Your task to perform on an android device: turn on translation in the chrome app Image 0: 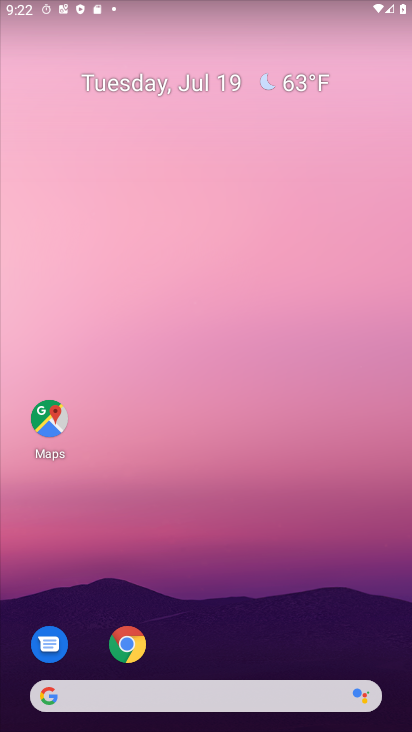
Step 0: click (171, 290)
Your task to perform on an android device: turn on translation in the chrome app Image 1: 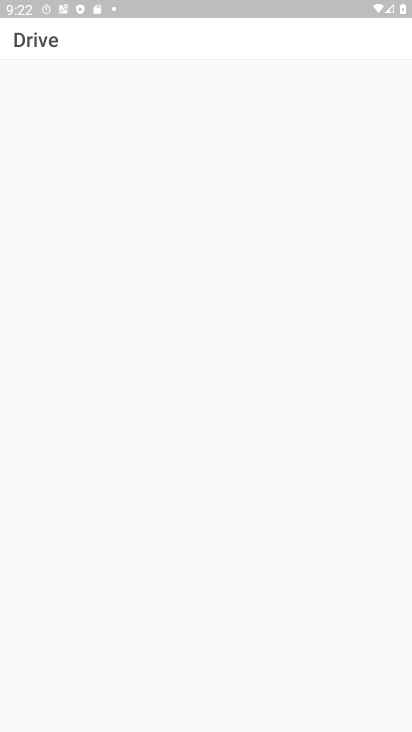
Step 1: drag from (208, 618) to (208, 187)
Your task to perform on an android device: turn on translation in the chrome app Image 2: 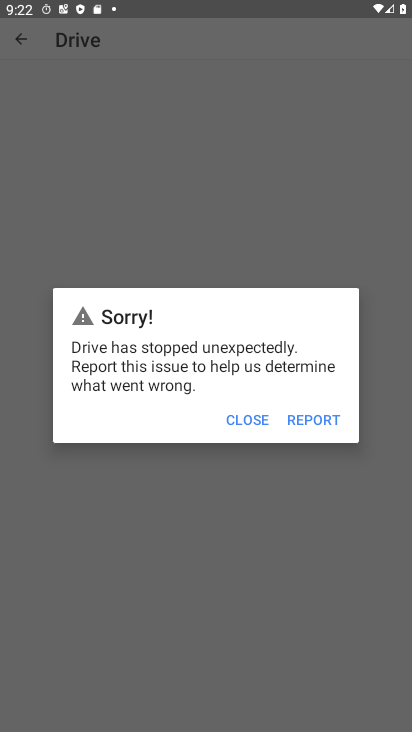
Step 2: click (241, 411)
Your task to perform on an android device: turn on translation in the chrome app Image 3: 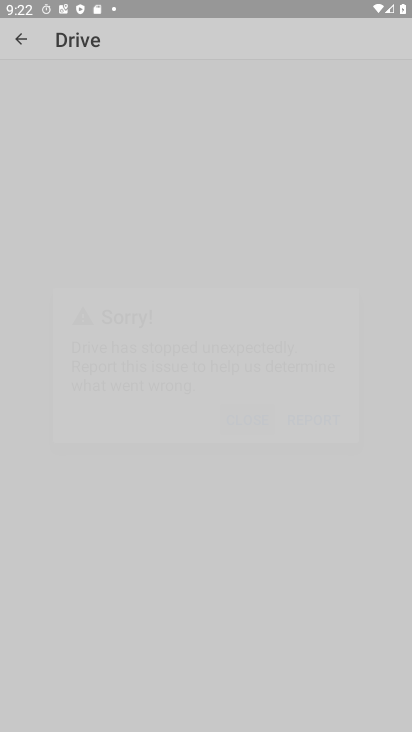
Step 3: click (242, 413)
Your task to perform on an android device: turn on translation in the chrome app Image 4: 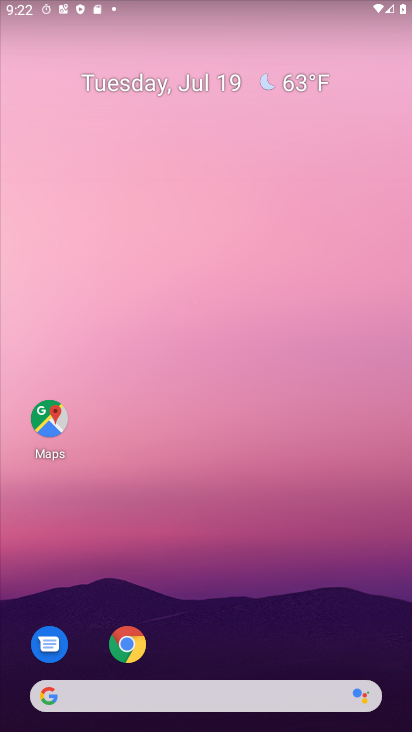
Step 4: drag from (198, 569) to (205, 198)
Your task to perform on an android device: turn on translation in the chrome app Image 5: 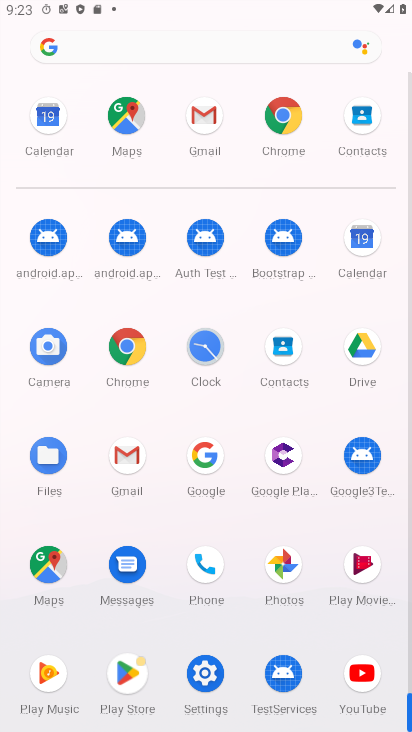
Step 5: click (299, 112)
Your task to perform on an android device: turn on translation in the chrome app Image 6: 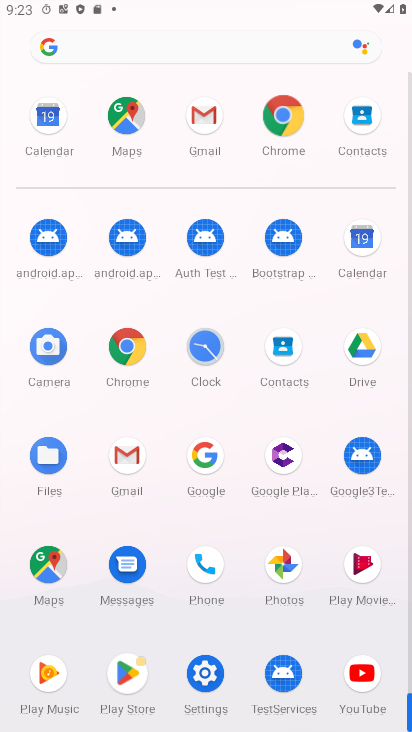
Step 6: click (299, 114)
Your task to perform on an android device: turn on translation in the chrome app Image 7: 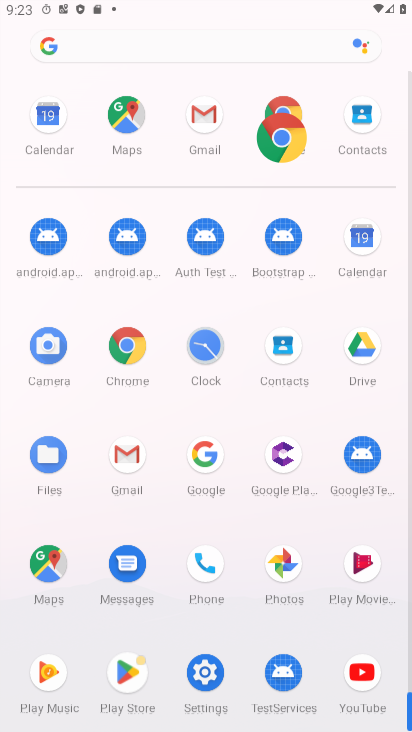
Step 7: click (299, 114)
Your task to perform on an android device: turn on translation in the chrome app Image 8: 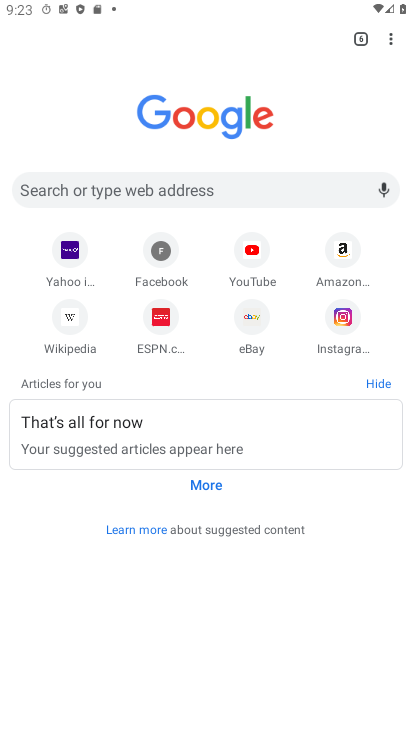
Step 8: drag from (382, 38) to (245, 333)
Your task to perform on an android device: turn on translation in the chrome app Image 9: 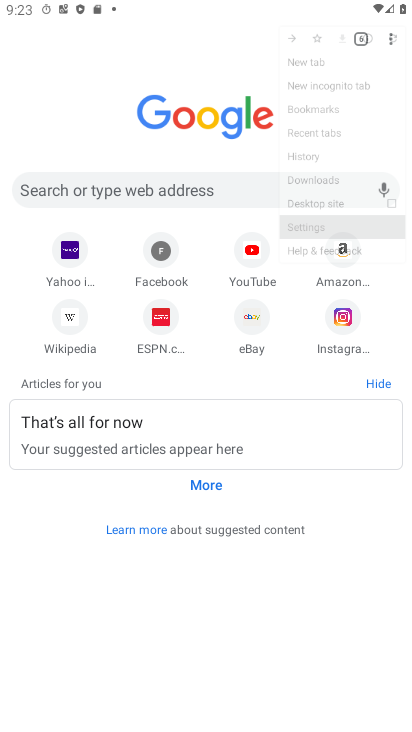
Step 9: click (245, 333)
Your task to perform on an android device: turn on translation in the chrome app Image 10: 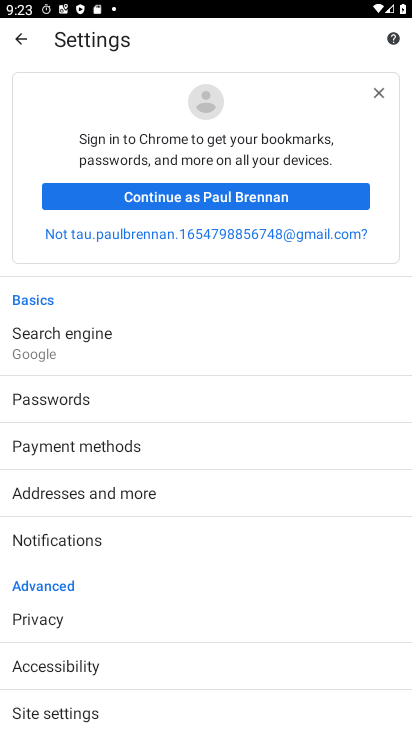
Step 10: drag from (126, 641) to (107, 139)
Your task to perform on an android device: turn on translation in the chrome app Image 11: 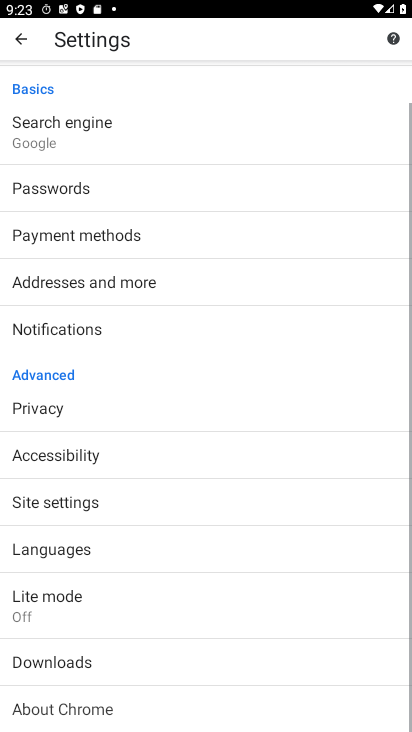
Step 11: drag from (119, 545) to (109, 176)
Your task to perform on an android device: turn on translation in the chrome app Image 12: 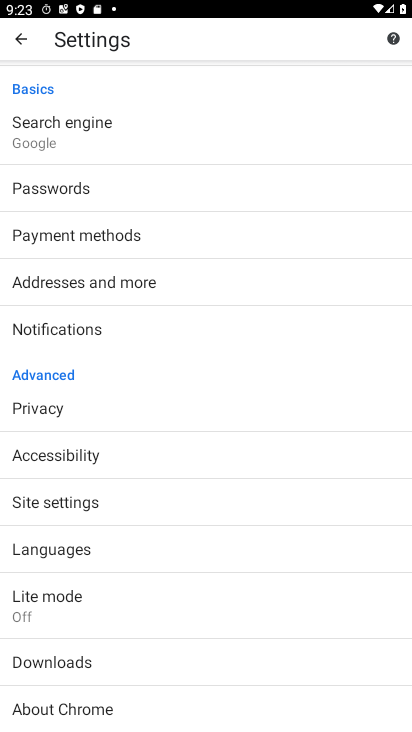
Step 12: click (70, 554)
Your task to perform on an android device: turn on translation in the chrome app Image 13: 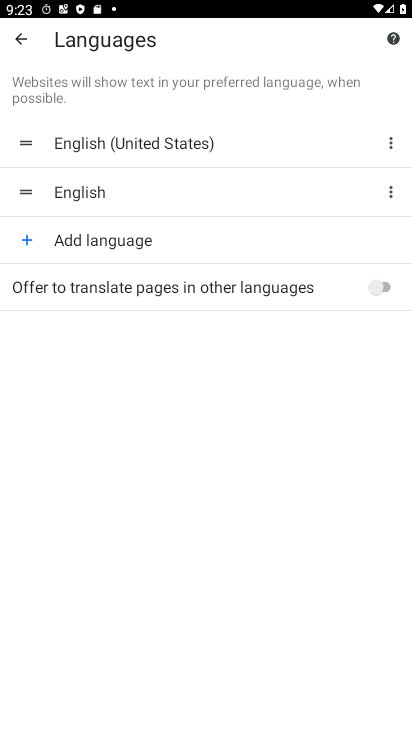
Step 13: click (377, 290)
Your task to perform on an android device: turn on translation in the chrome app Image 14: 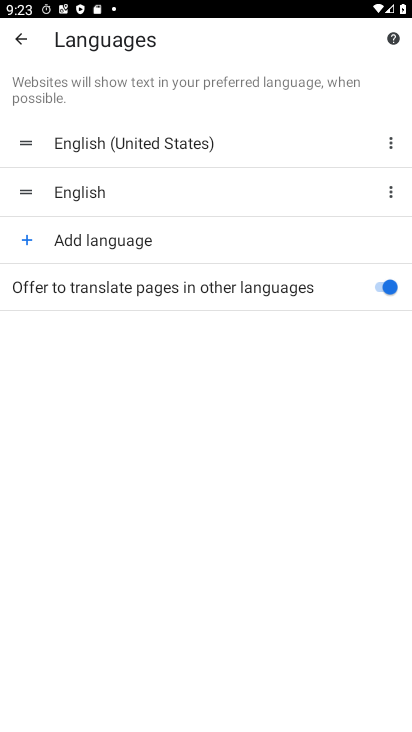
Step 14: task complete